Your task to perform on an android device: find photos in the google photos app Image 0: 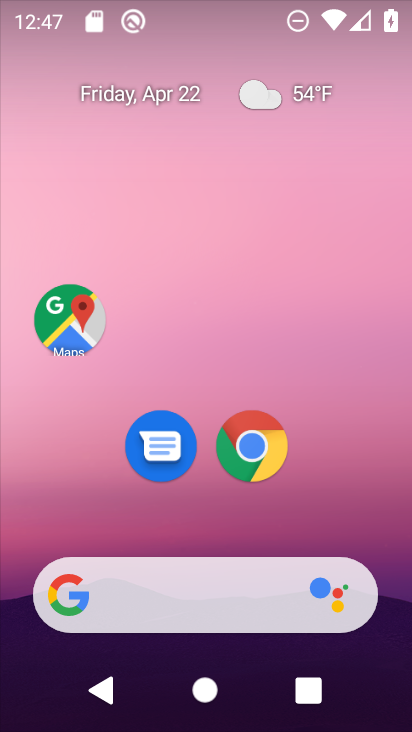
Step 0: drag from (379, 538) to (323, 146)
Your task to perform on an android device: find photos in the google photos app Image 1: 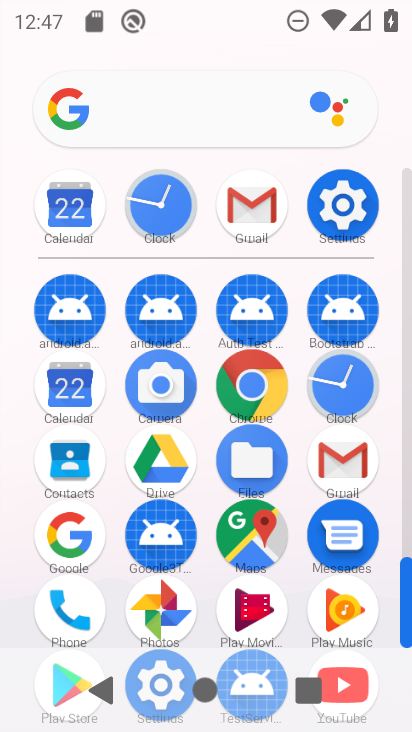
Step 1: click (172, 589)
Your task to perform on an android device: find photos in the google photos app Image 2: 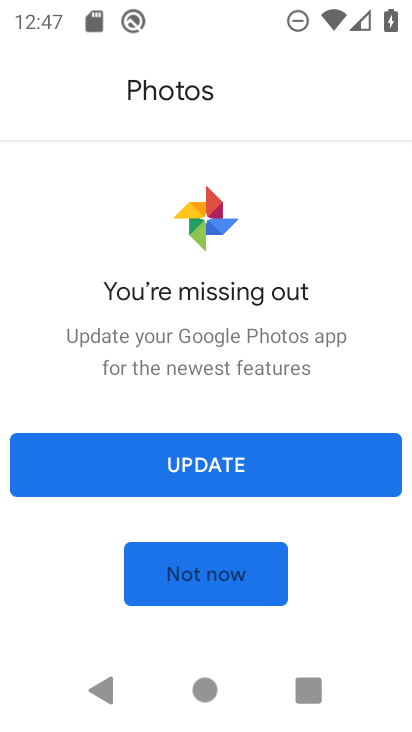
Step 2: click (250, 576)
Your task to perform on an android device: find photos in the google photos app Image 3: 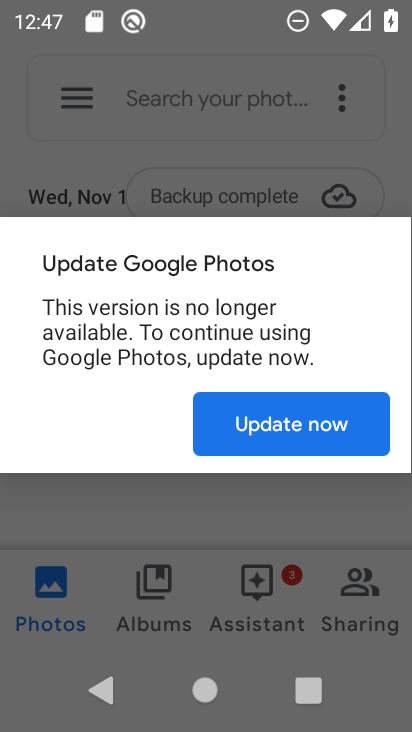
Step 3: click (290, 427)
Your task to perform on an android device: find photos in the google photos app Image 4: 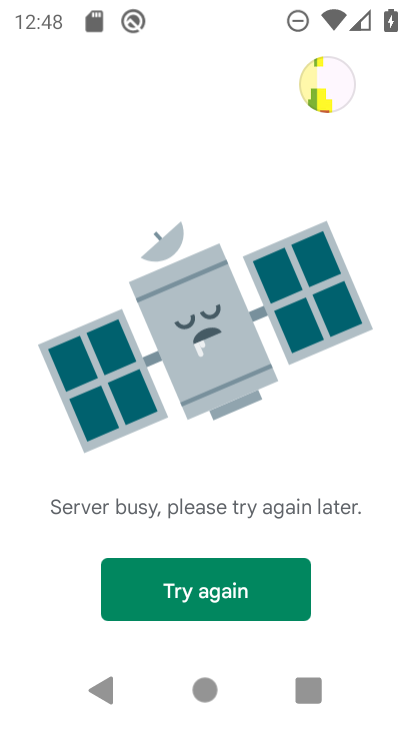
Step 4: task complete